Your task to perform on an android device: turn on priority inbox in the gmail app Image 0: 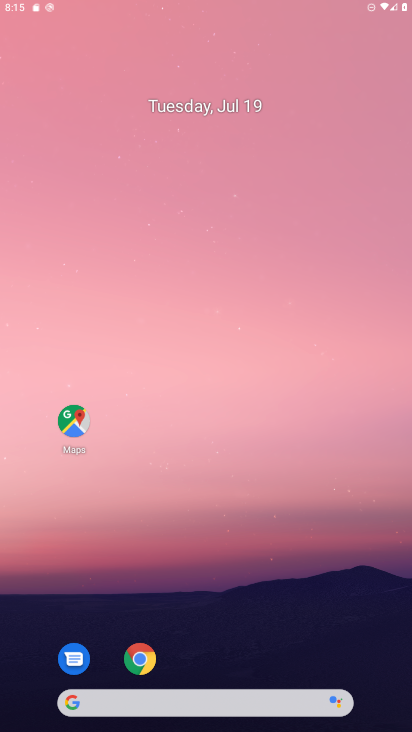
Step 0: click (246, 168)
Your task to perform on an android device: turn on priority inbox in the gmail app Image 1: 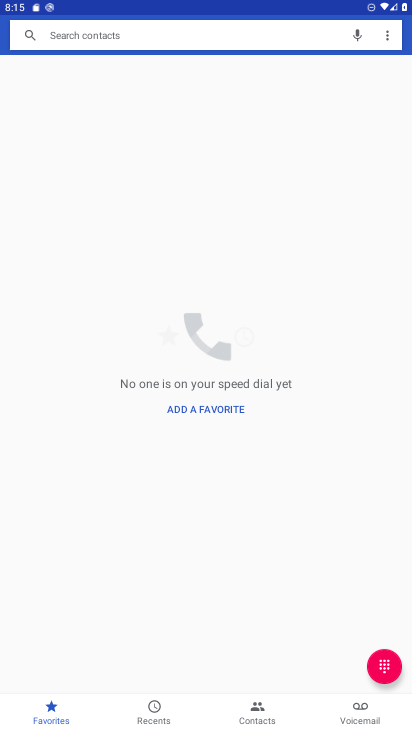
Step 1: press home button
Your task to perform on an android device: turn on priority inbox in the gmail app Image 2: 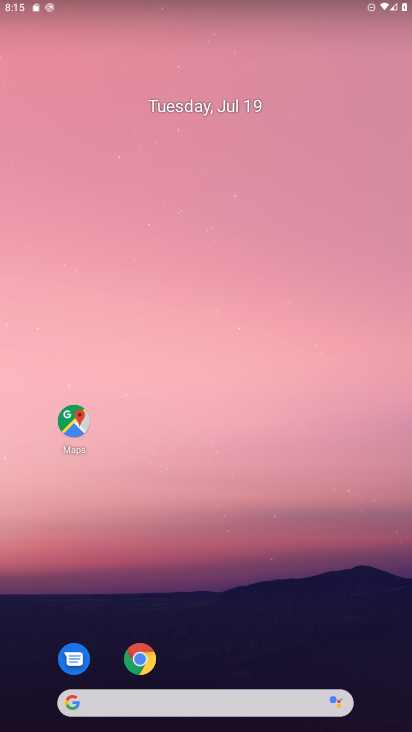
Step 2: drag from (227, 620) to (243, 142)
Your task to perform on an android device: turn on priority inbox in the gmail app Image 3: 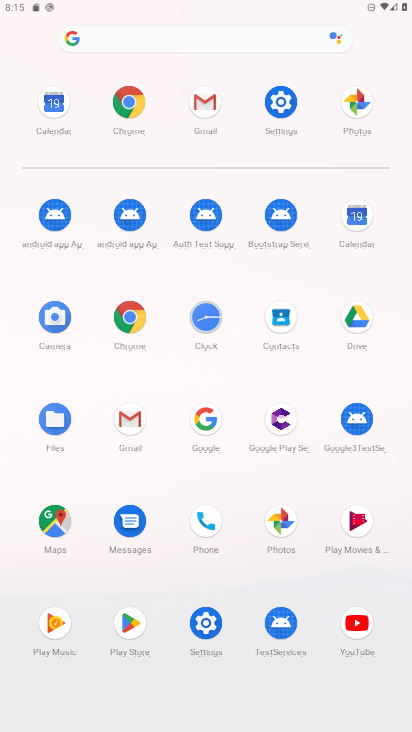
Step 3: click (129, 420)
Your task to perform on an android device: turn on priority inbox in the gmail app Image 4: 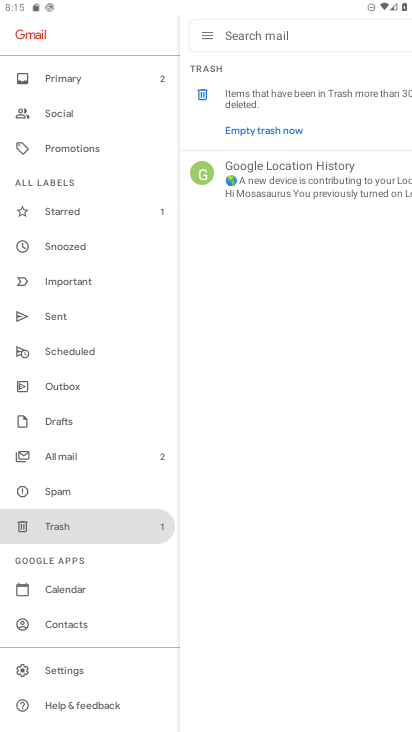
Step 4: click (100, 658)
Your task to perform on an android device: turn on priority inbox in the gmail app Image 5: 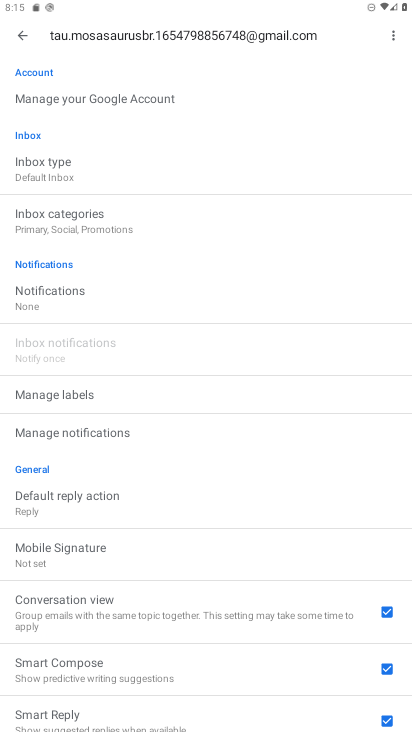
Step 5: click (84, 174)
Your task to perform on an android device: turn on priority inbox in the gmail app Image 6: 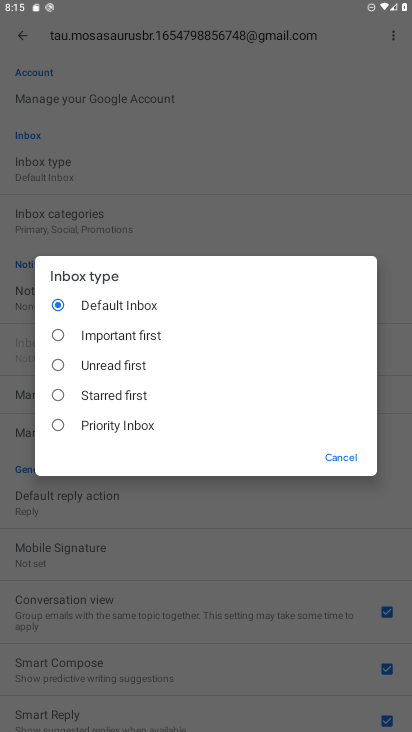
Step 6: click (113, 423)
Your task to perform on an android device: turn on priority inbox in the gmail app Image 7: 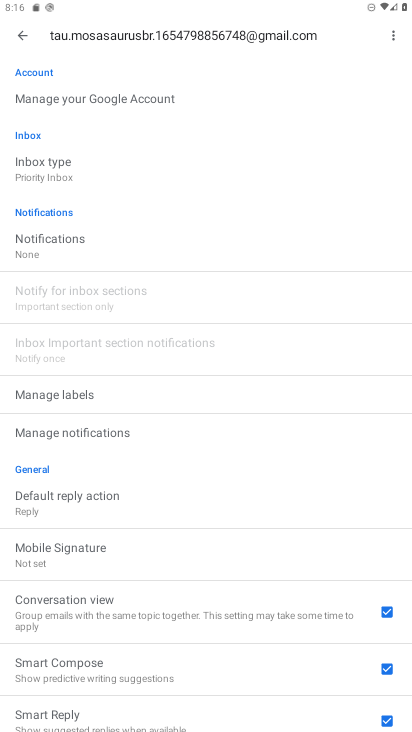
Step 7: task complete